Your task to perform on an android device: How big is a giraffe? Image 0: 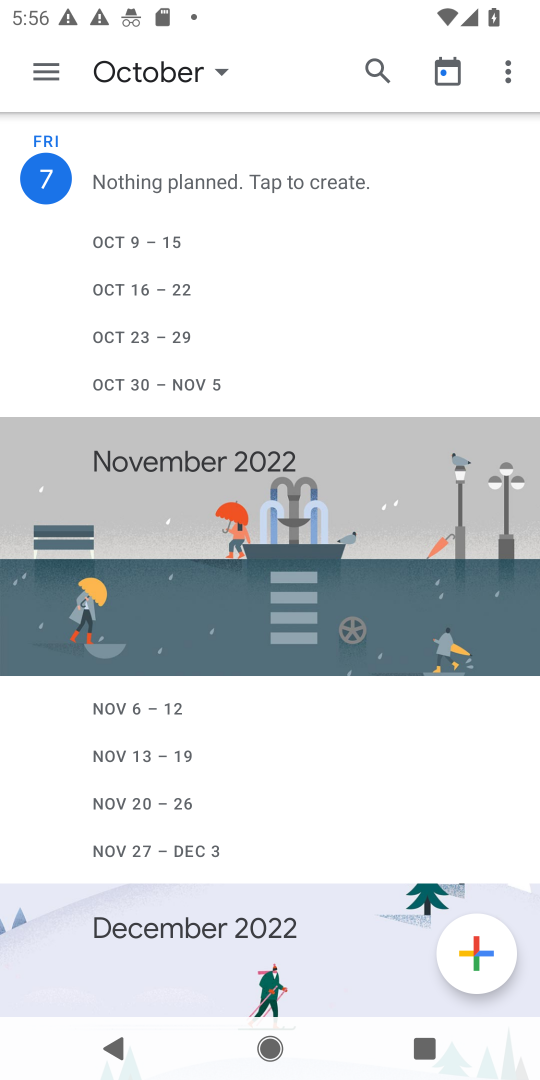
Step 0: press home button
Your task to perform on an android device: How big is a giraffe? Image 1: 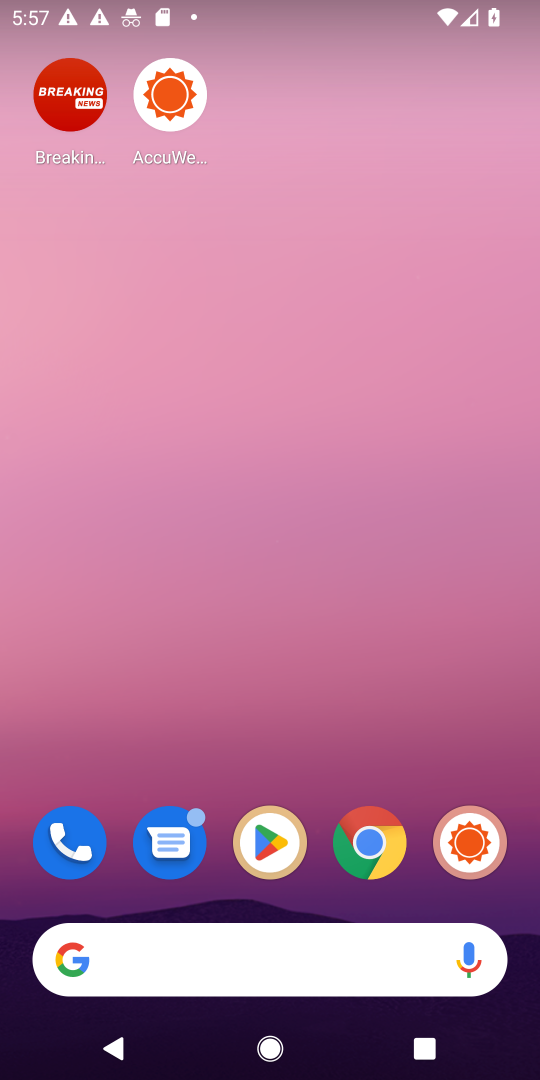
Step 1: click (210, 963)
Your task to perform on an android device: How big is a giraffe? Image 2: 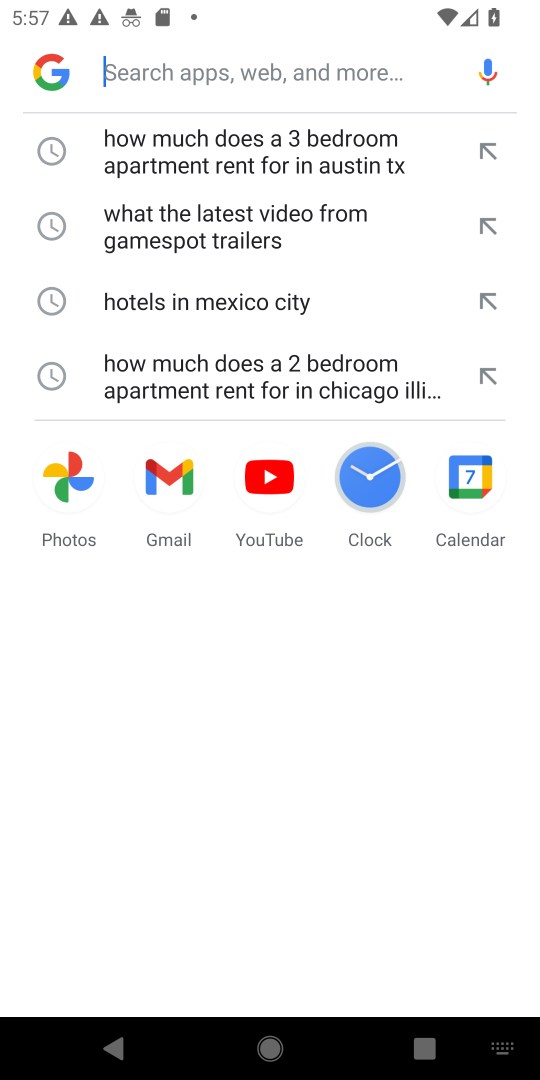
Step 2: click (181, 94)
Your task to perform on an android device: How big is a giraffe? Image 3: 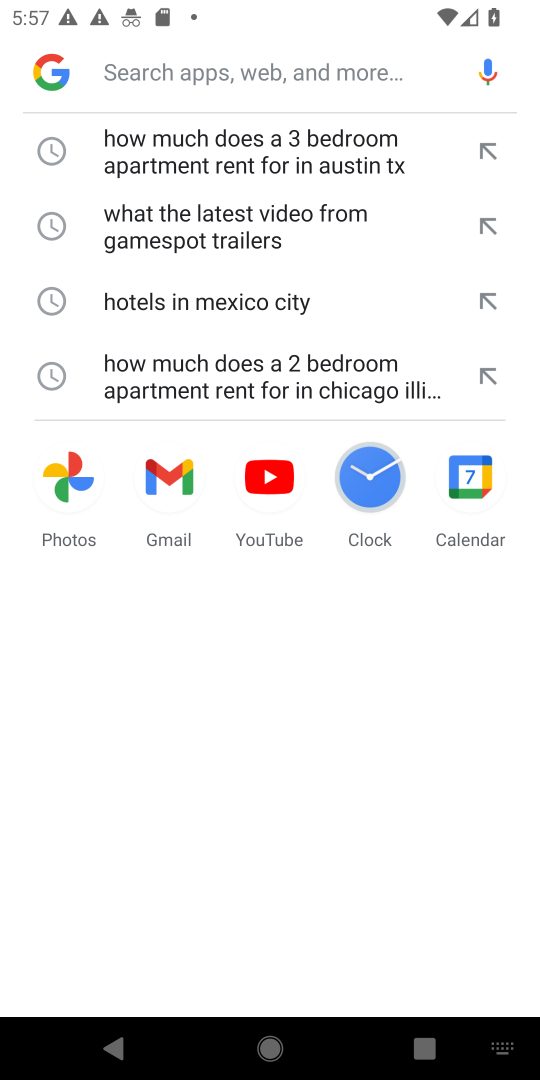
Step 3: type "How big is a giraffe"
Your task to perform on an android device: How big is a giraffe? Image 4: 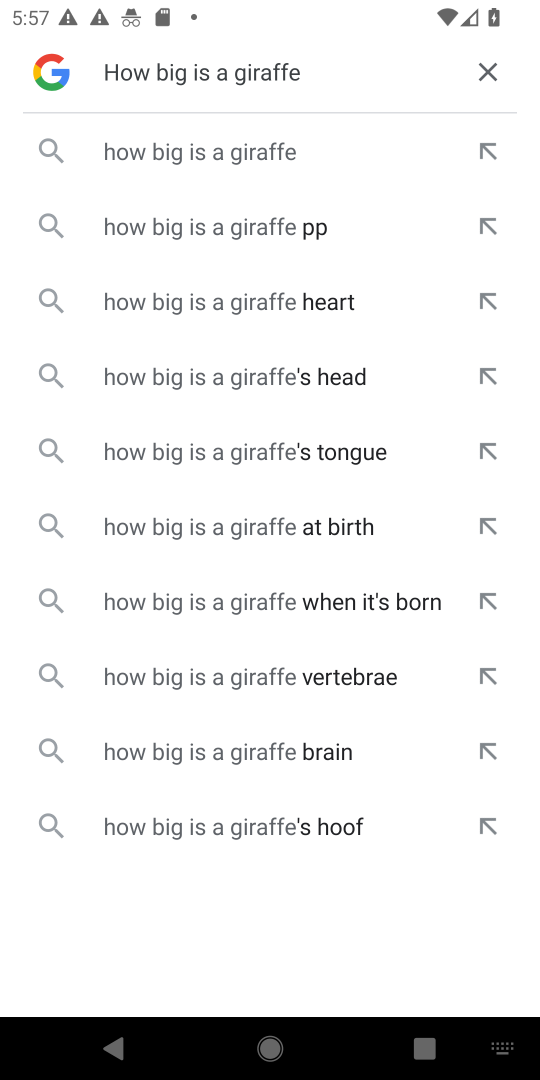
Step 4: click (228, 159)
Your task to perform on an android device: How big is a giraffe? Image 5: 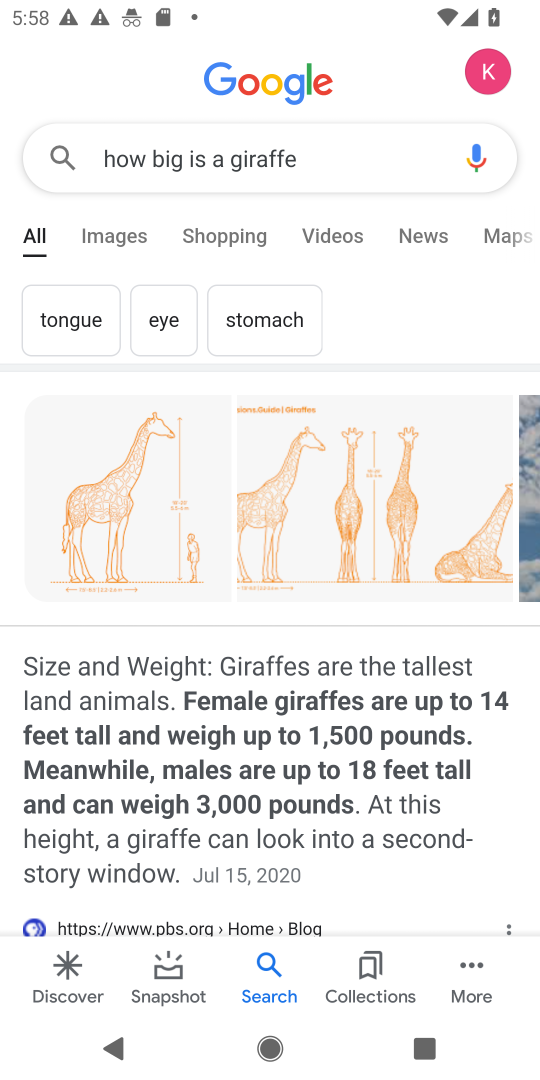
Step 5: task complete